Your task to perform on an android device: turn on airplane mode Image 0: 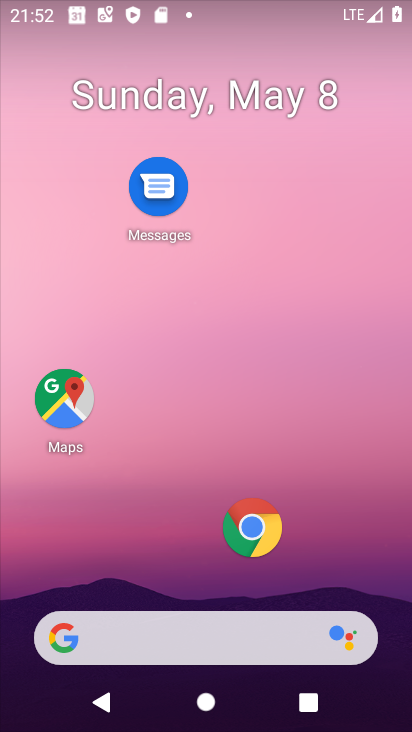
Step 0: drag from (196, 578) to (232, 67)
Your task to perform on an android device: turn on airplane mode Image 1: 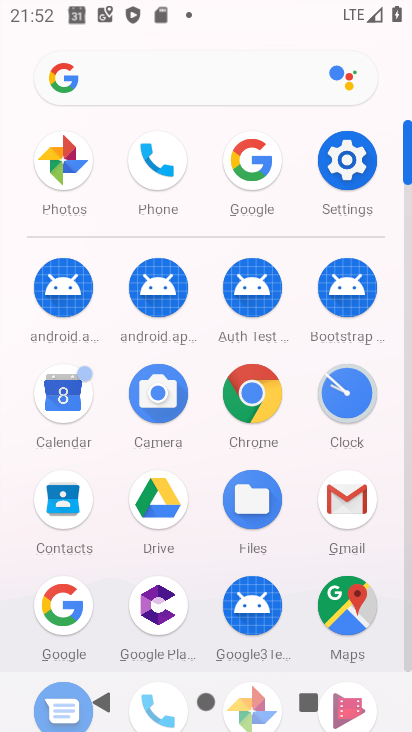
Step 1: click (347, 157)
Your task to perform on an android device: turn on airplane mode Image 2: 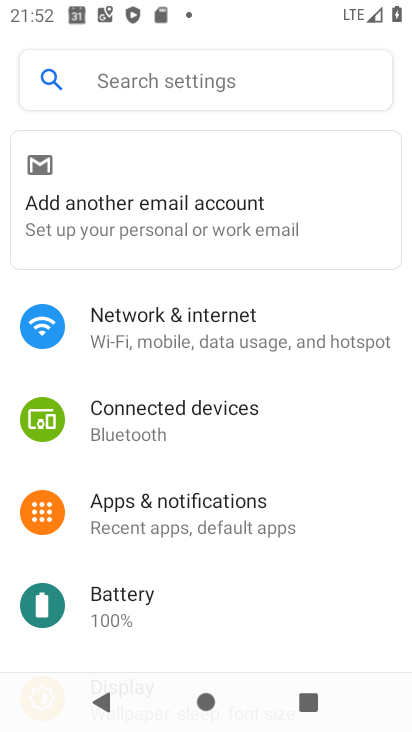
Step 2: drag from (214, 504) to (231, 337)
Your task to perform on an android device: turn on airplane mode Image 3: 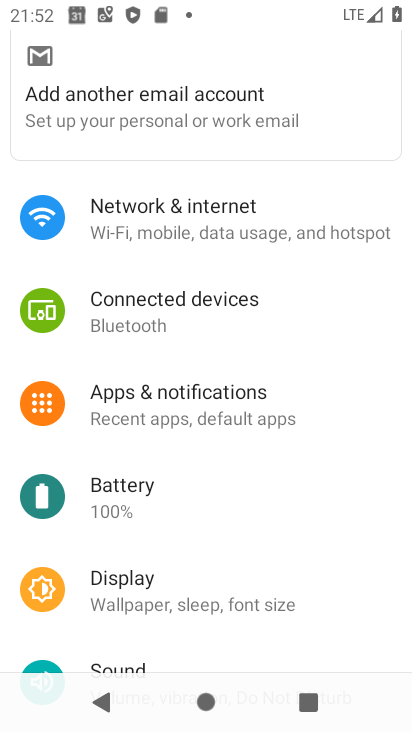
Step 3: click (193, 222)
Your task to perform on an android device: turn on airplane mode Image 4: 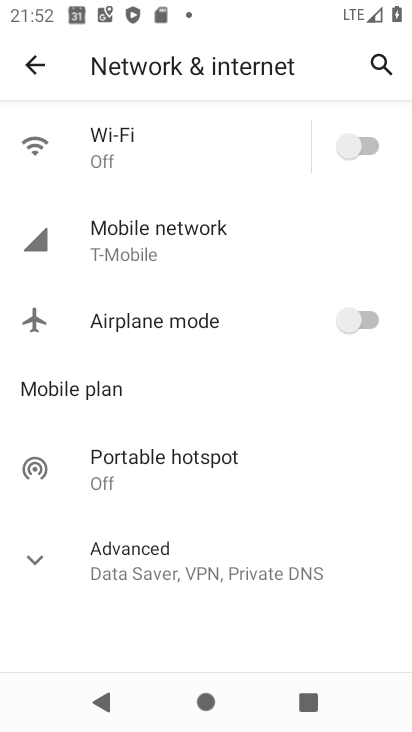
Step 4: click (346, 313)
Your task to perform on an android device: turn on airplane mode Image 5: 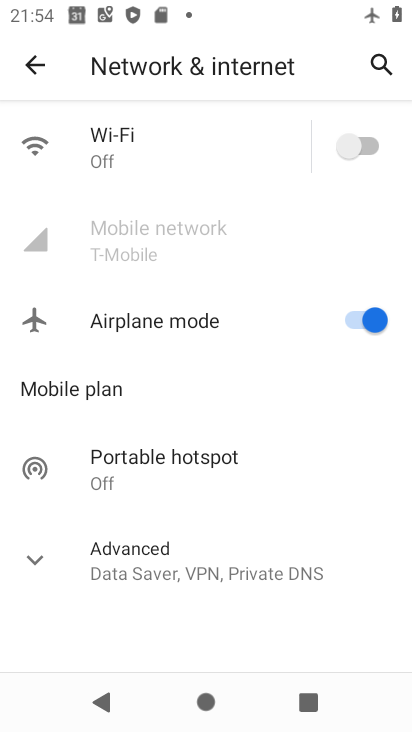
Step 5: task complete